Your task to perform on an android device: When is my next appointment? Image 0: 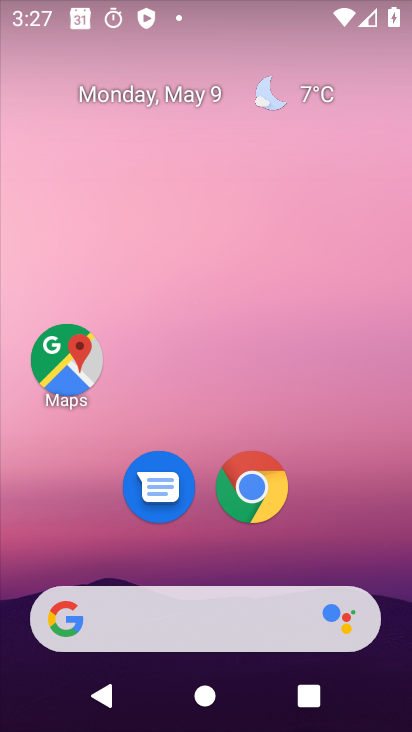
Step 0: drag from (324, 585) to (275, 48)
Your task to perform on an android device: When is my next appointment? Image 1: 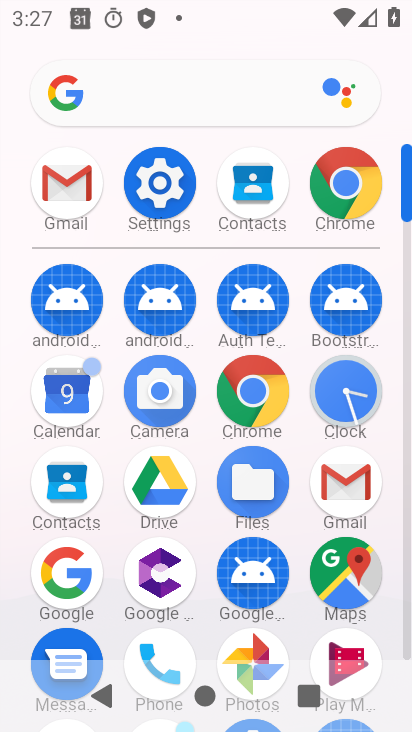
Step 1: click (82, 388)
Your task to perform on an android device: When is my next appointment? Image 2: 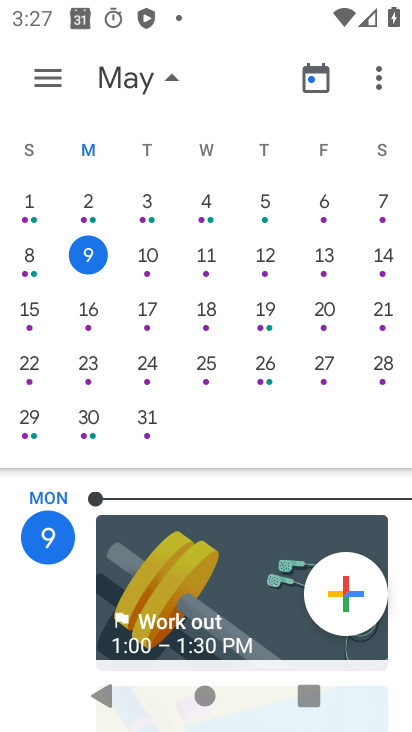
Step 2: click (83, 249)
Your task to perform on an android device: When is my next appointment? Image 3: 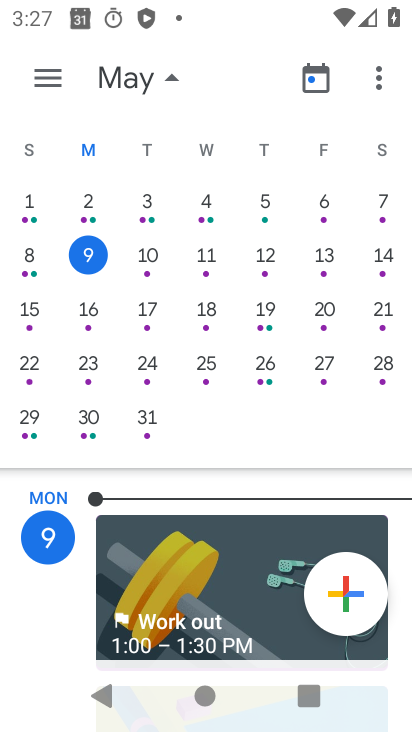
Step 3: task complete